Your task to perform on an android device: Empty the shopping cart on bestbuy. Search for beats solo 3 on bestbuy, select the first entry, add it to the cart, then select checkout. Image 0: 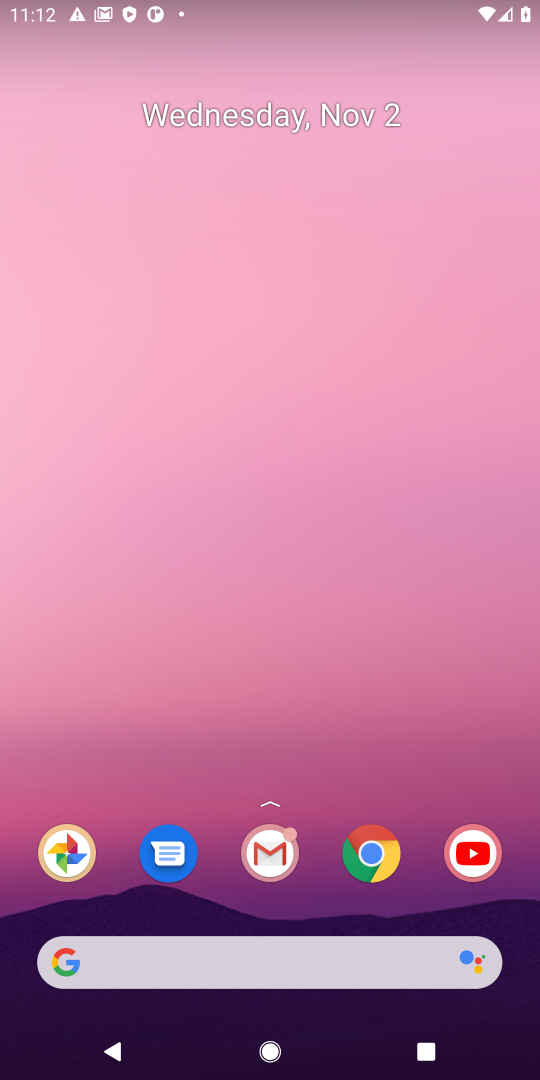
Step 0: click (366, 859)
Your task to perform on an android device: Empty the shopping cart on bestbuy. Search for beats solo 3 on bestbuy, select the first entry, add it to the cart, then select checkout. Image 1: 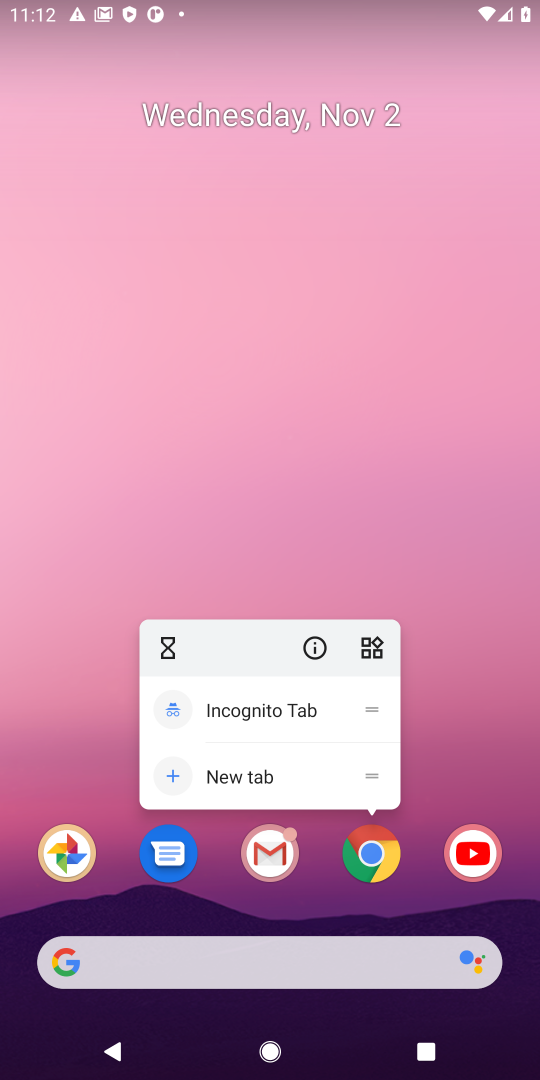
Step 1: click (373, 854)
Your task to perform on an android device: Empty the shopping cart on bestbuy. Search for beats solo 3 on bestbuy, select the first entry, add it to the cart, then select checkout. Image 2: 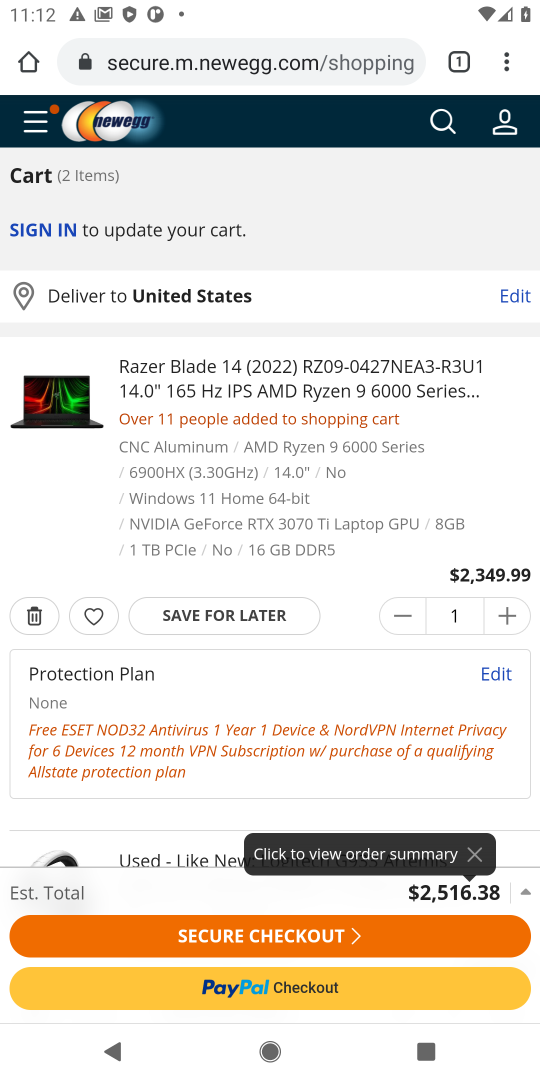
Step 2: click (214, 67)
Your task to perform on an android device: Empty the shopping cart on bestbuy. Search for beats solo 3 on bestbuy, select the first entry, add it to the cart, then select checkout. Image 3: 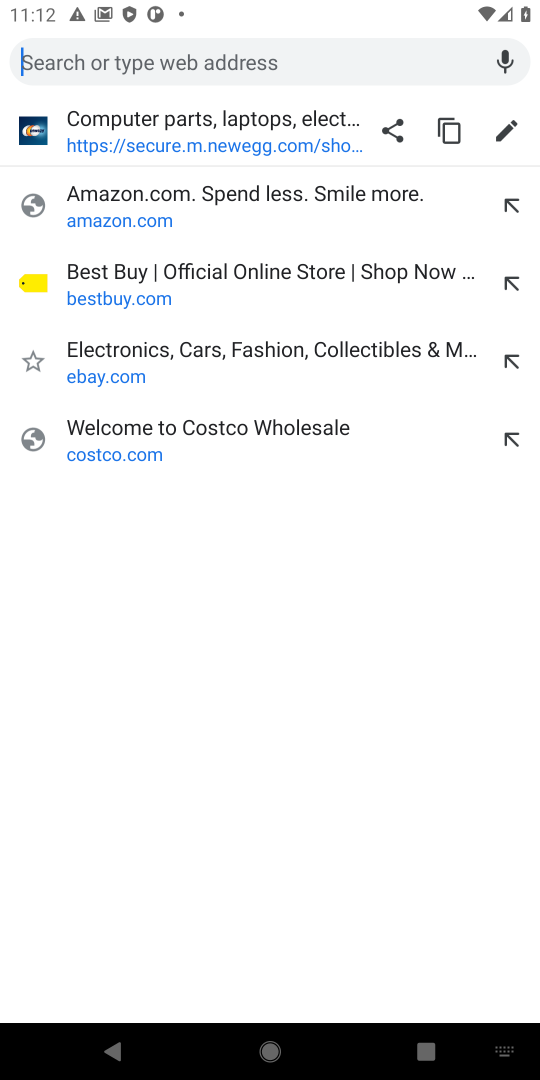
Step 3: click (124, 292)
Your task to perform on an android device: Empty the shopping cart on bestbuy. Search for beats solo 3 on bestbuy, select the first entry, add it to the cart, then select checkout. Image 4: 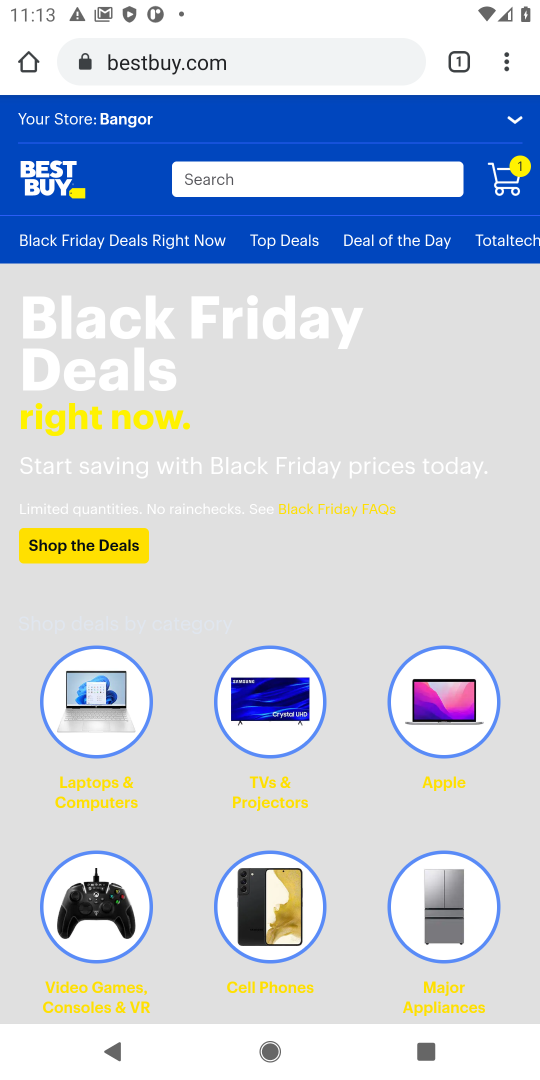
Step 4: click (243, 180)
Your task to perform on an android device: Empty the shopping cart on bestbuy. Search for beats solo 3 on bestbuy, select the first entry, add it to the cart, then select checkout. Image 5: 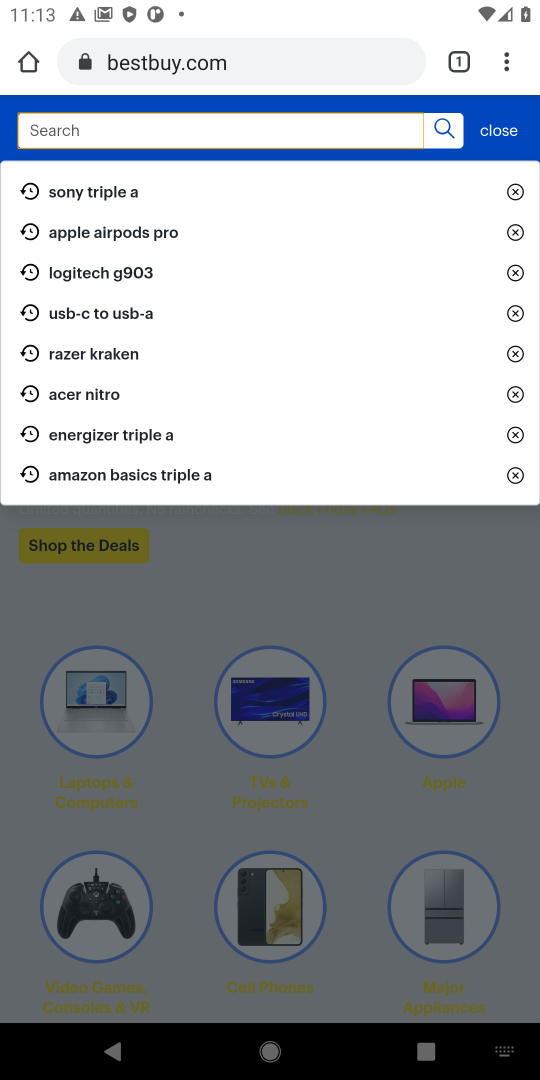
Step 5: type "beats solo 3"
Your task to perform on an android device: Empty the shopping cart on bestbuy. Search for beats solo 3 on bestbuy, select the first entry, add it to the cart, then select checkout. Image 6: 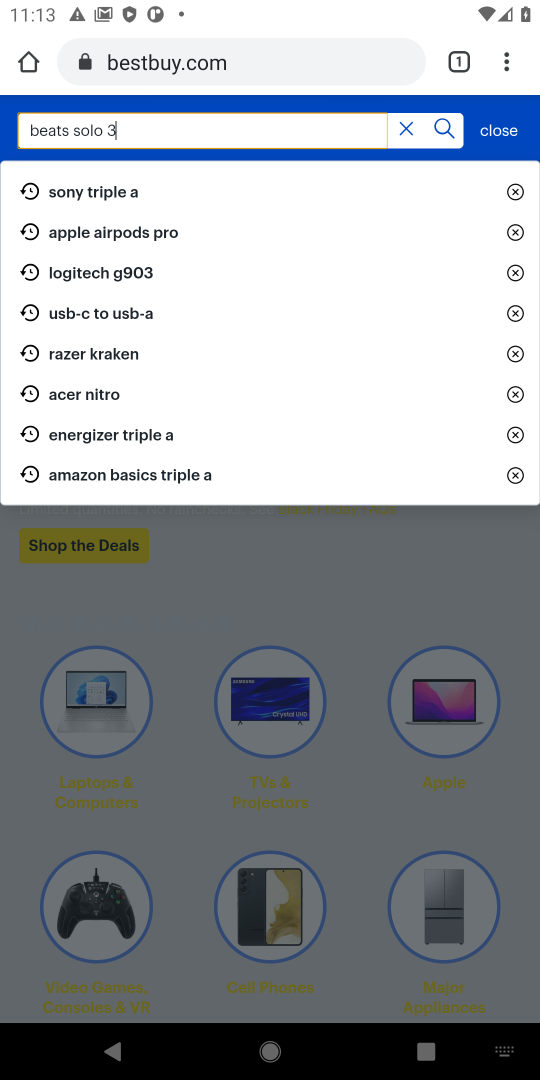
Step 6: press enter
Your task to perform on an android device: Empty the shopping cart on bestbuy. Search for beats solo 3 on bestbuy, select the first entry, add it to the cart, then select checkout. Image 7: 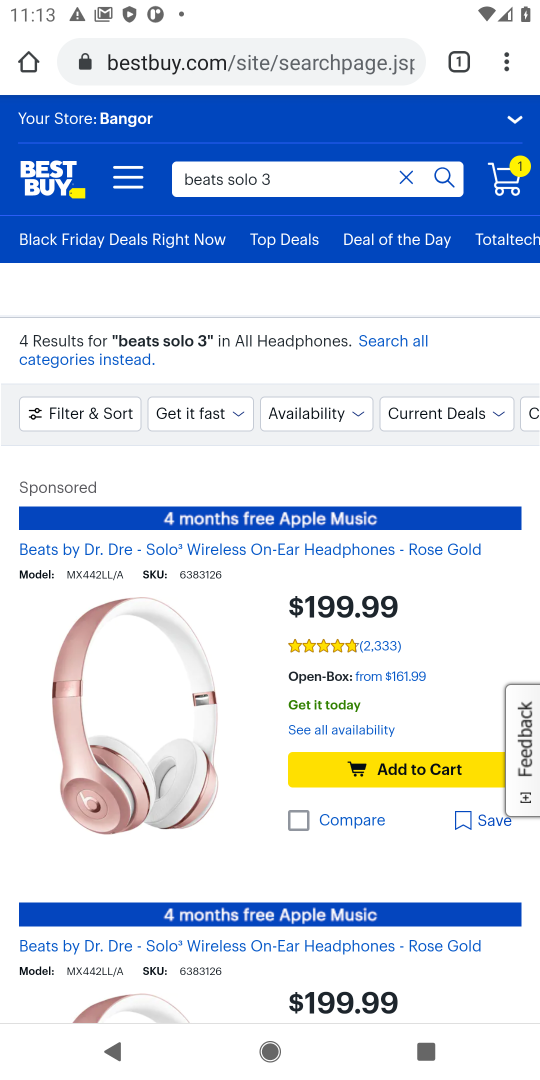
Step 7: click (390, 766)
Your task to perform on an android device: Empty the shopping cart on bestbuy. Search for beats solo 3 on bestbuy, select the first entry, add it to the cart, then select checkout. Image 8: 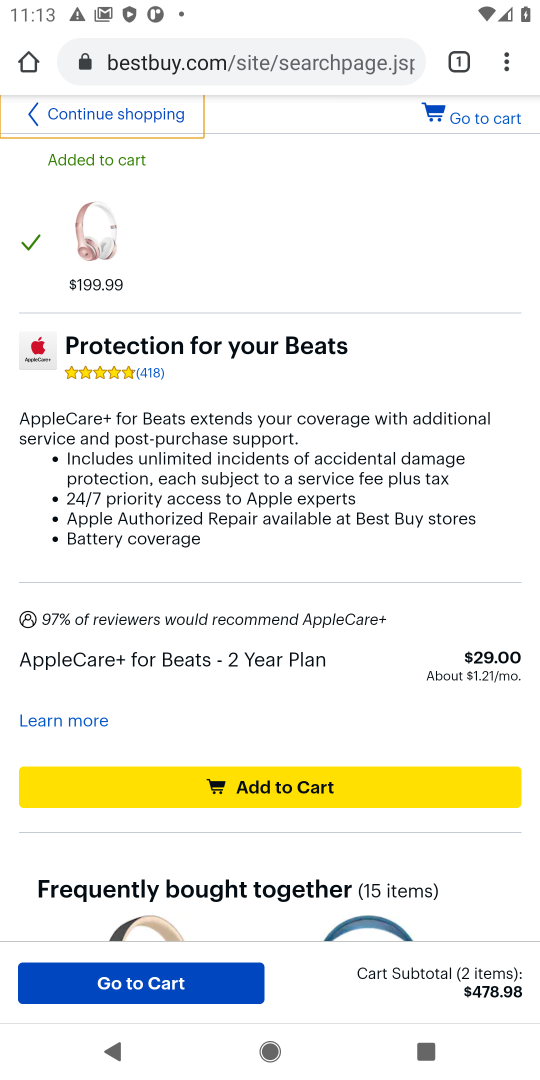
Step 8: click (498, 112)
Your task to perform on an android device: Empty the shopping cart on bestbuy. Search for beats solo 3 on bestbuy, select the first entry, add it to the cart, then select checkout. Image 9: 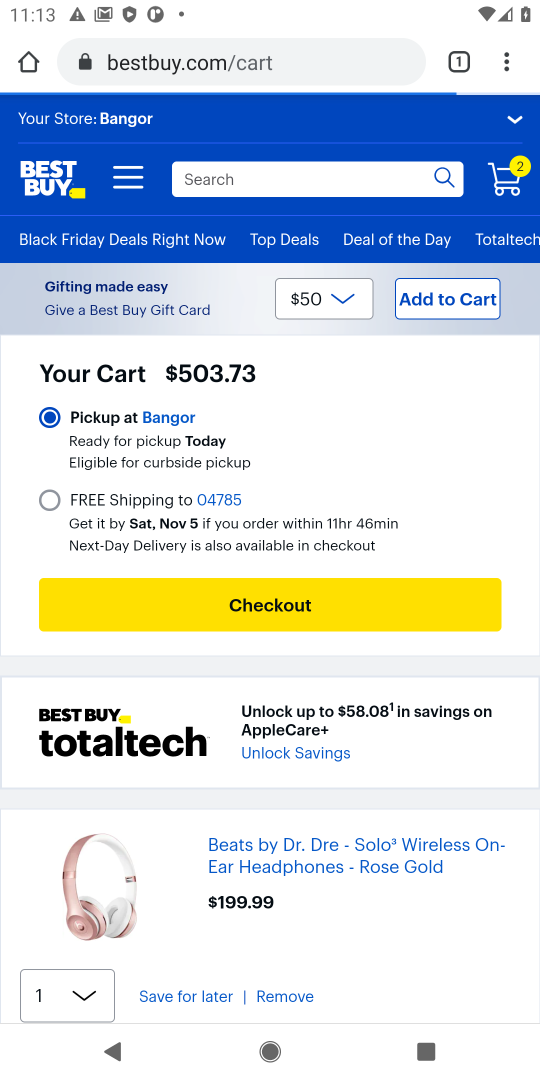
Step 9: drag from (199, 822) to (443, 13)
Your task to perform on an android device: Empty the shopping cart on bestbuy. Search for beats solo 3 on bestbuy, select the first entry, add it to the cart, then select checkout. Image 10: 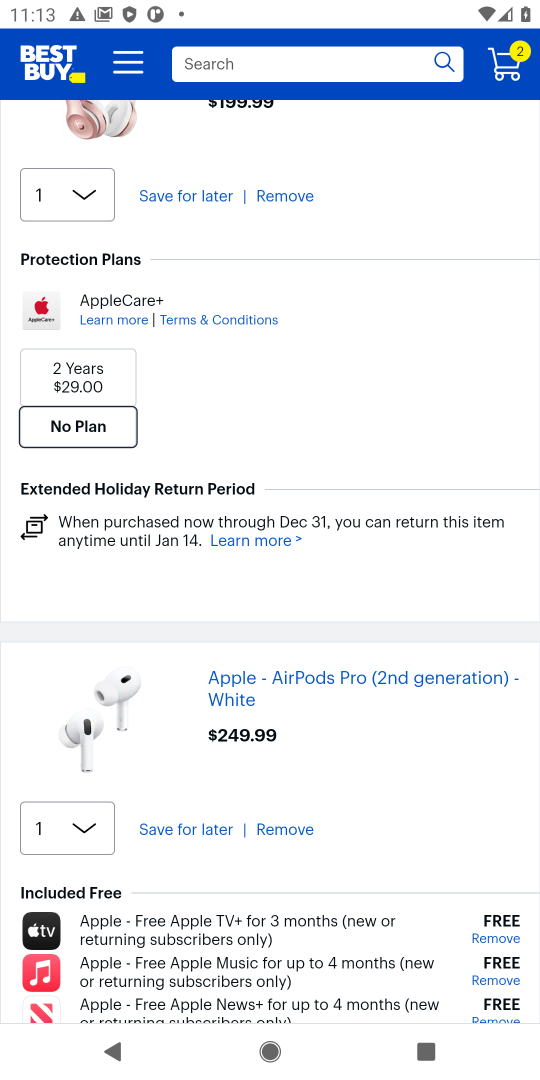
Step 10: click (274, 829)
Your task to perform on an android device: Empty the shopping cart on bestbuy. Search for beats solo 3 on bestbuy, select the first entry, add it to the cart, then select checkout. Image 11: 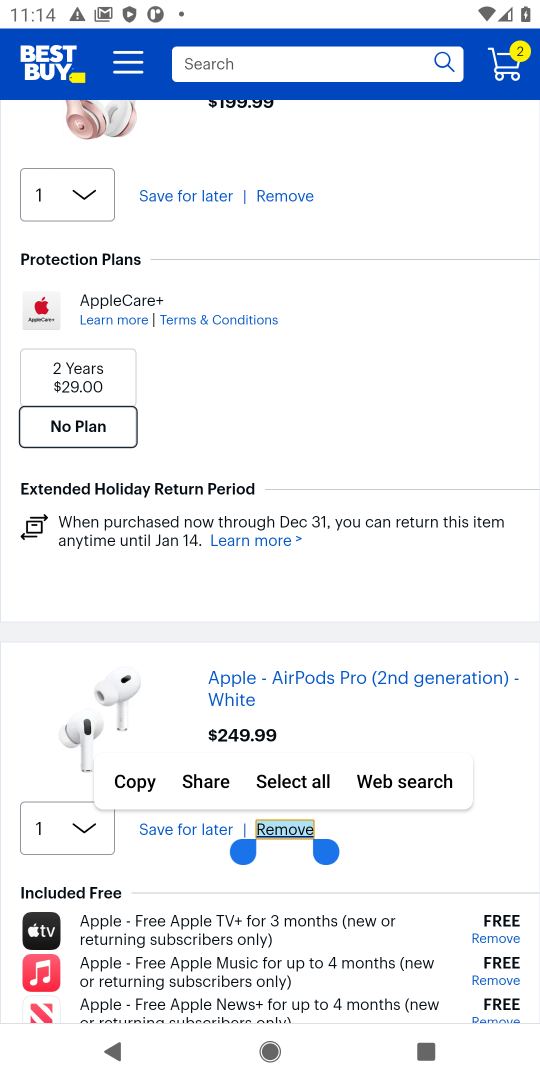
Step 11: click (285, 826)
Your task to perform on an android device: Empty the shopping cart on bestbuy. Search for beats solo 3 on bestbuy, select the first entry, add it to the cart, then select checkout. Image 12: 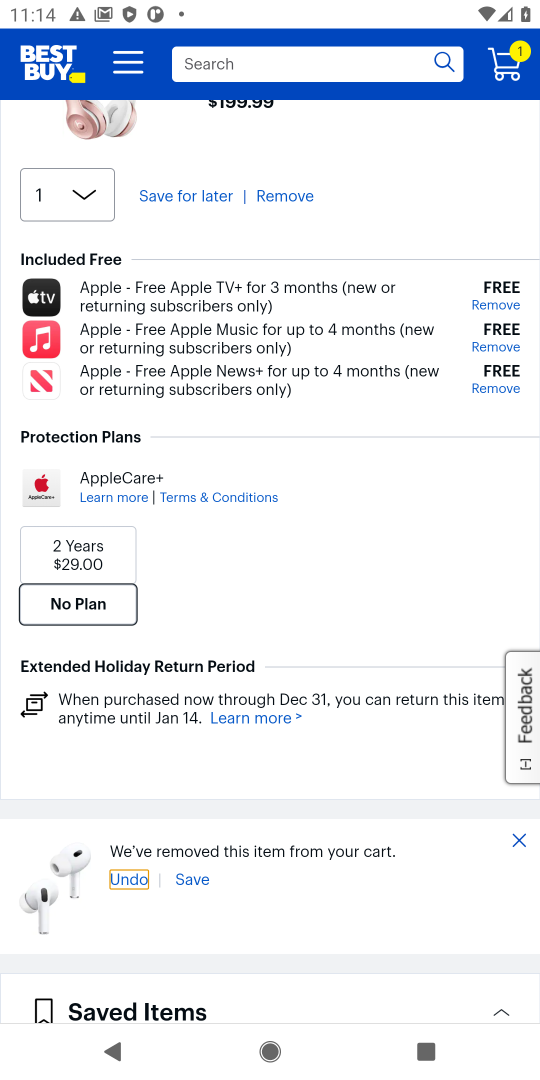
Step 12: drag from (412, 193) to (289, 833)
Your task to perform on an android device: Empty the shopping cart on bestbuy. Search for beats solo 3 on bestbuy, select the first entry, add it to the cart, then select checkout. Image 13: 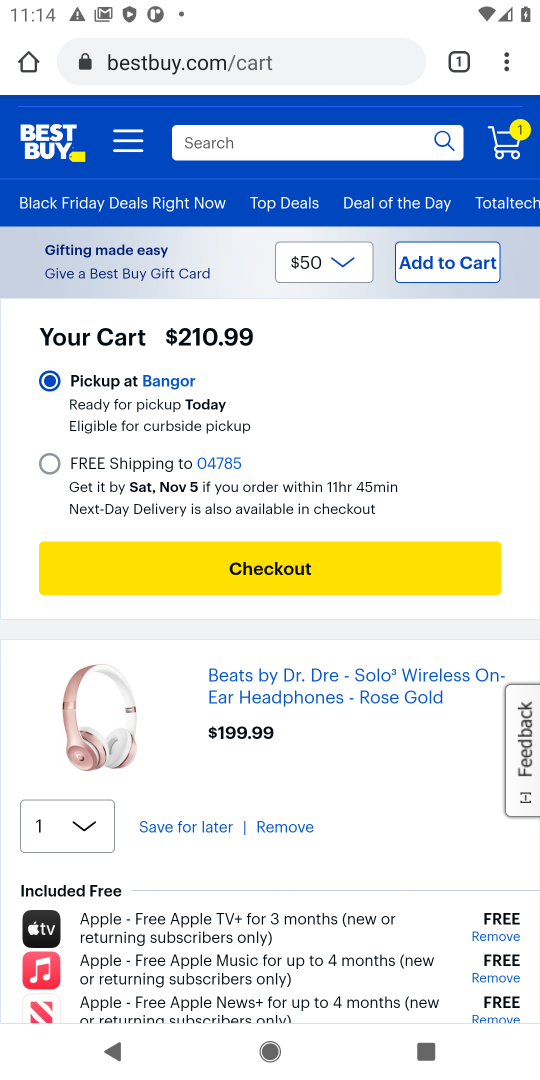
Step 13: click (252, 567)
Your task to perform on an android device: Empty the shopping cart on bestbuy. Search for beats solo 3 on bestbuy, select the first entry, add it to the cart, then select checkout. Image 14: 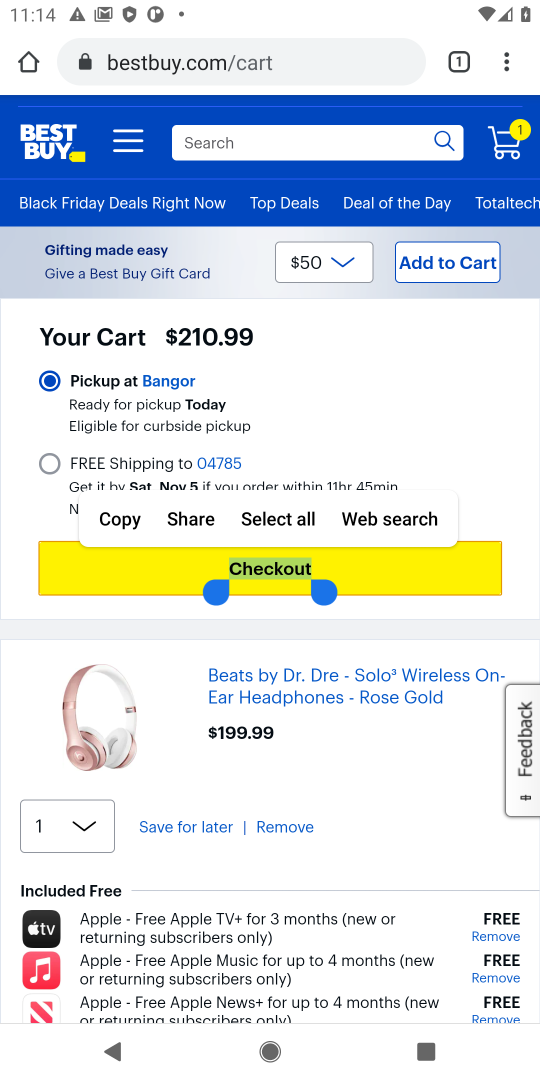
Step 14: click (278, 574)
Your task to perform on an android device: Empty the shopping cart on bestbuy. Search for beats solo 3 on bestbuy, select the first entry, add it to the cart, then select checkout. Image 15: 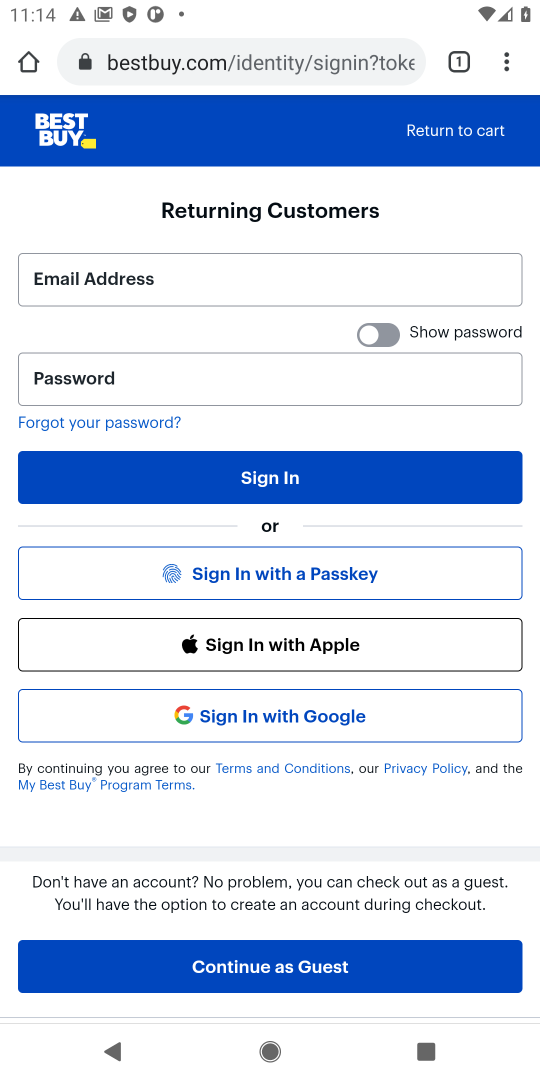
Step 15: task complete